Your task to perform on an android device: install app "Adobe Express: Graphic Design" Image 0: 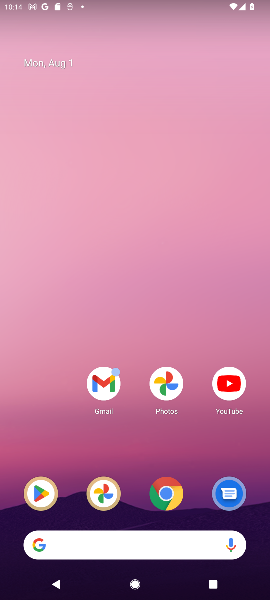
Step 0: click (60, 522)
Your task to perform on an android device: install app "Adobe Express: Graphic Design" Image 1: 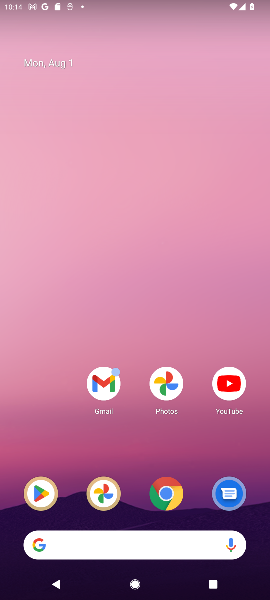
Step 1: click (60, 522)
Your task to perform on an android device: install app "Adobe Express: Graphic Design" Image 2: 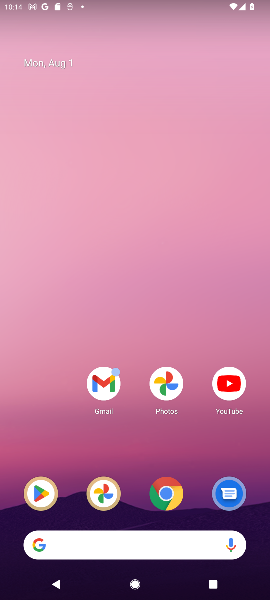
Step 2: click (41, 501)
Your task to perform on an android device: install app "Adobe Express: Graphic Design" Image 3: 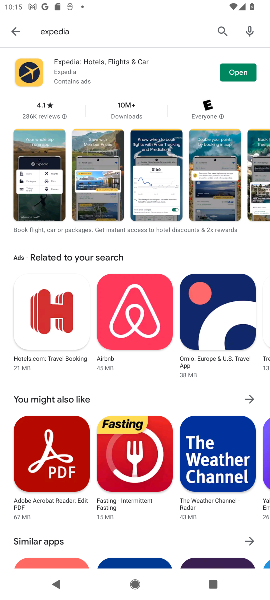
Step 3: click (214, 28)
Your task to perform on an android device: install app "Adobe Express: Graphic Design" Image 4: 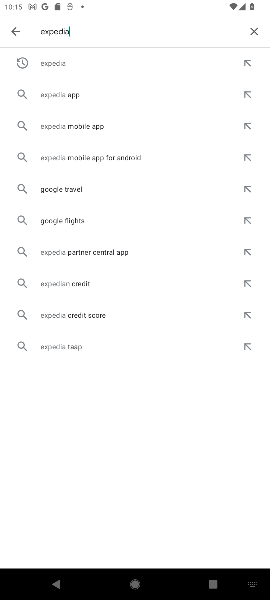
Step 4: click (248, 32)
Your task to perform on an android device: install app "Adobe Express: Graphic Design" Image 5: 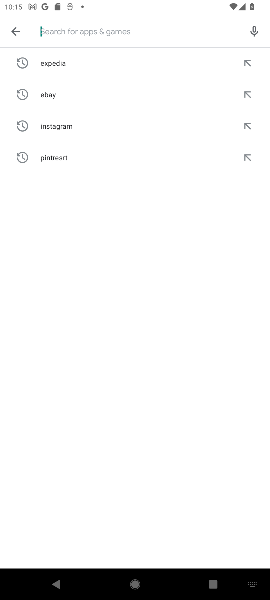
Step 5: type "adobe"
Your task to perform on an android device: install app "Adobe Express: Graphic Design" Image 6: 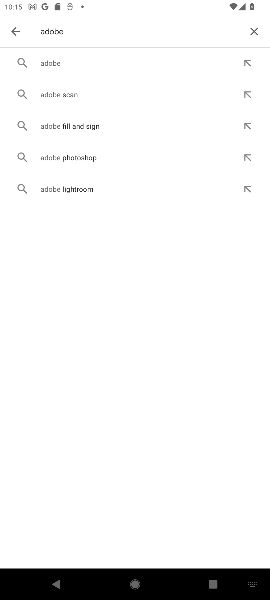
Step 6: click (71, 56)
Your task to perform on an android device: install app "Adobe Express: Graphic Design" Image 7: 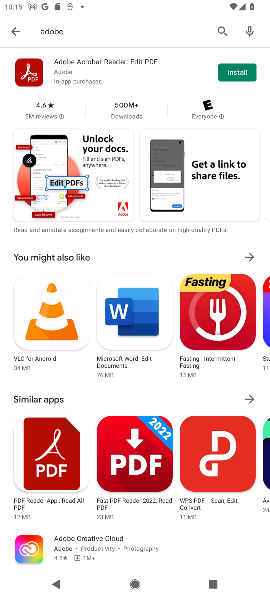
Step 7: click (221, 79)
Your task to perform on an android device: install app "Adobe Express: Graphic Design" Image 8: 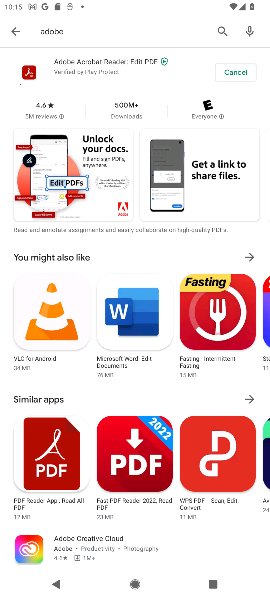
Step 8: task complete